Your task to perform on an android device: Open sound settings Image 0: 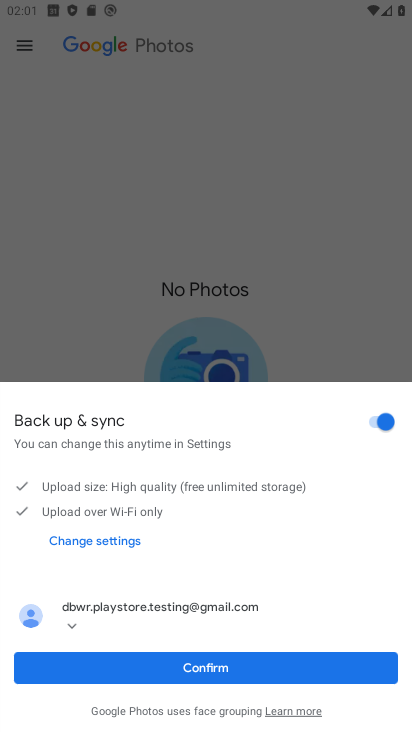
Step 0: press home button
Your task to perform on an android device: Open sound settings Image 1: 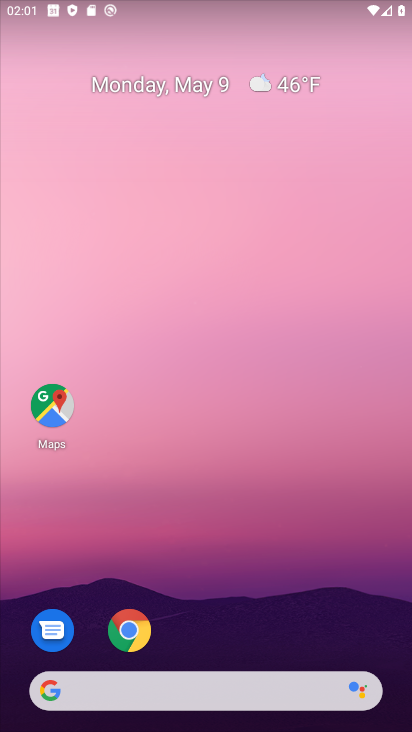
Step 1: drag from (216, 546) to (193, 99)
Your task to perform on an android device: Open sound settings Image 2: 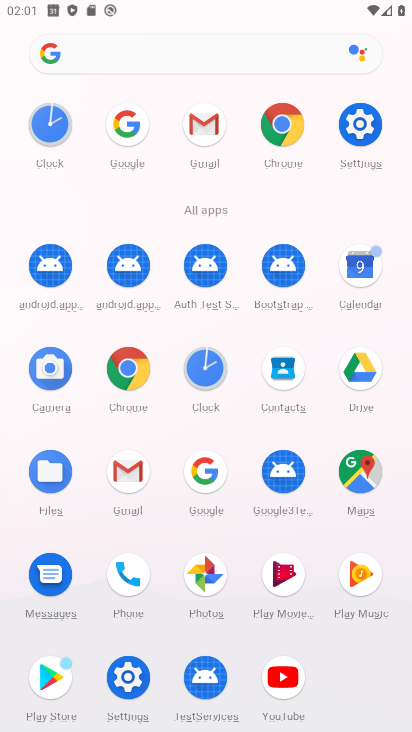
Step 2: click (360, 122)
Your task to perform on an android device: Open sound settings Image 3: 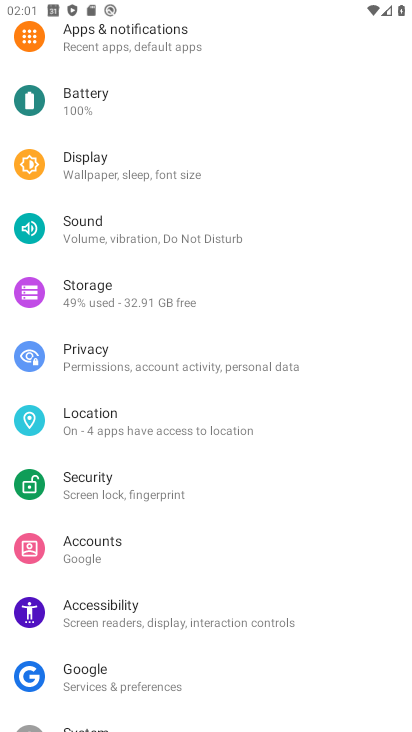
Step 3: click (141, 237)
Your task to perform on an android device: Open sound settings Image 4: 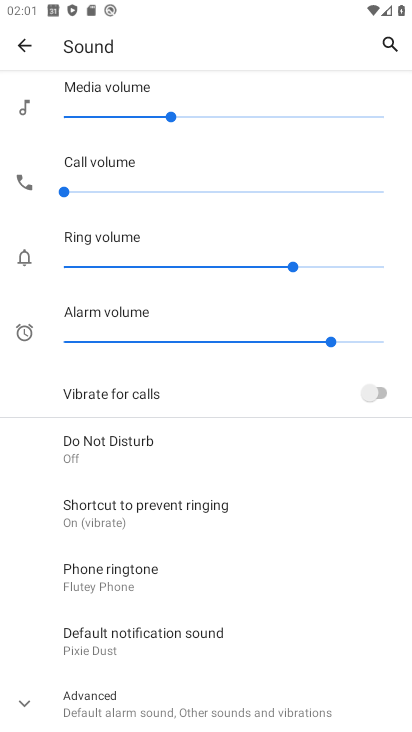
Step 4: task complete